Your task to perform on an android device: check google app version Image 0: 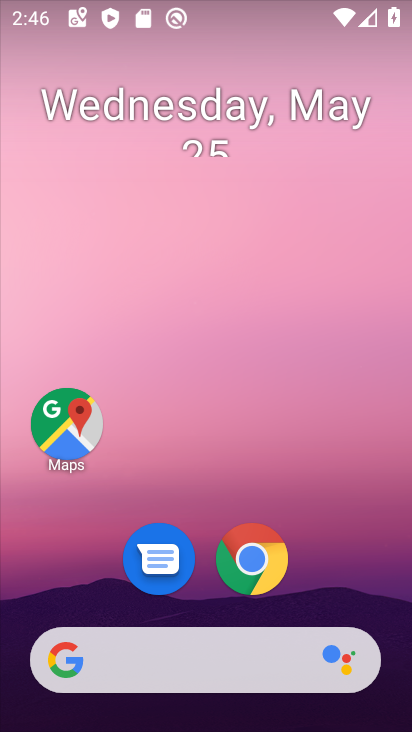
Step 0: press home button
Your task to perform on an android device: check google app version Image 1: 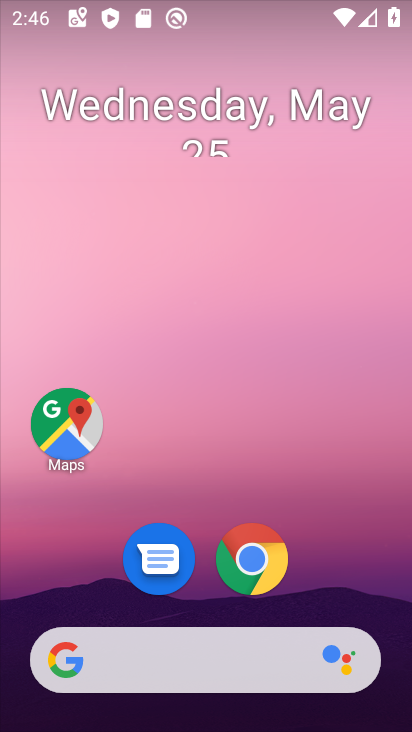
Step 1: drag from (204, 591) to (226, 96)
Your task to perform on an android device: check google app version Image 2: 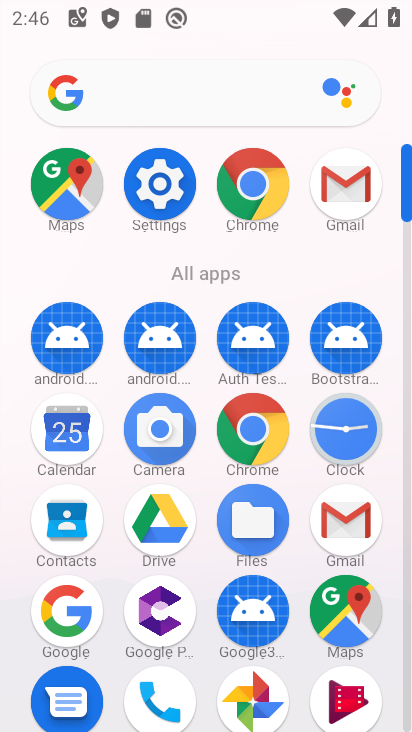
Step 2: click (65, 604)
Your task to perform on an android device: check google app version Image 3: 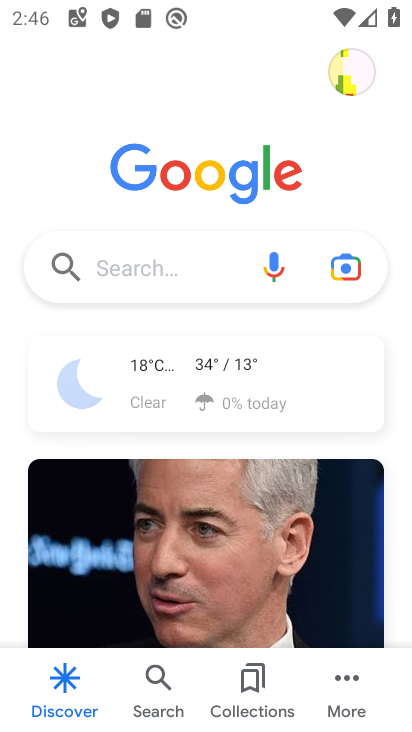
Step 3: click (344, 678)
Your task to perform on an android device: check google app version Image 4: 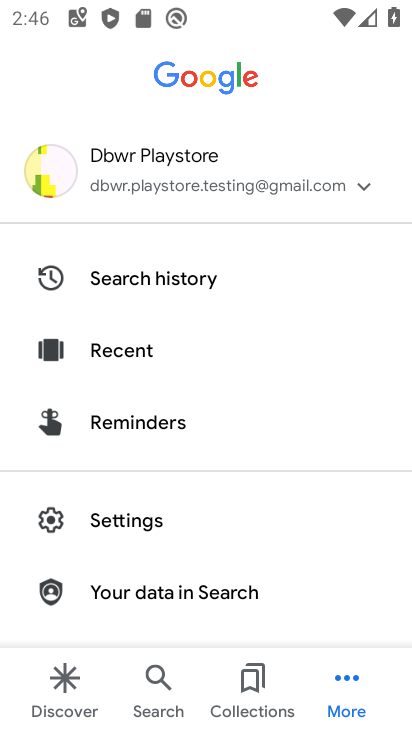
Step 4: click (173, 518)
Your task to perform on an android device: check google app version Image 5: 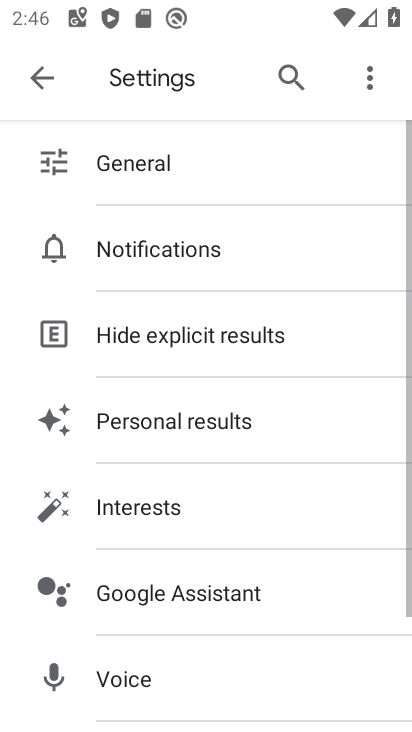
Step 5: click (165, 672)
Your task to perform on an android device: check google app version Image 6: 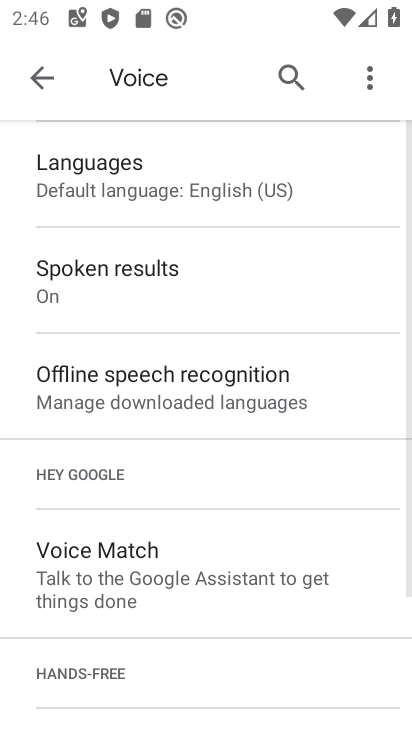
Step 6: click (52, 73)
Your task to perform on an android device: check google app version Image 7: 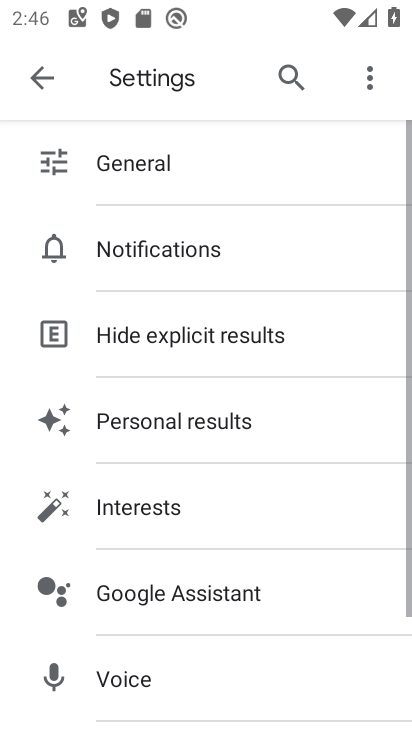
Step 7: drag from (181, 605) to (219, 173)
Your task to perform on an android device: check google app version Image 8: 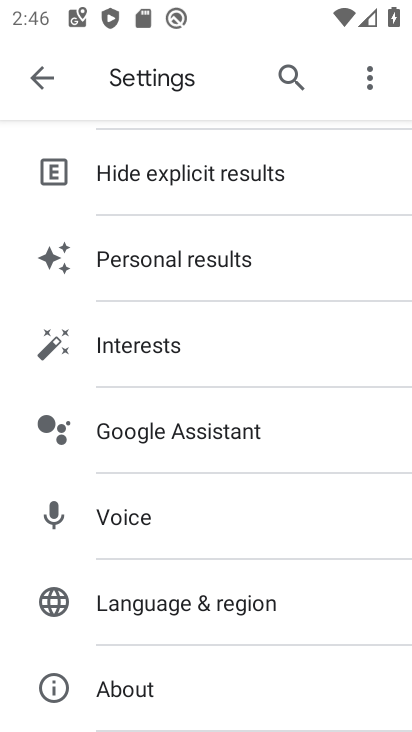
Step 8: click (163, 690)
Your task to perform on an android device: check google app version Image 9: 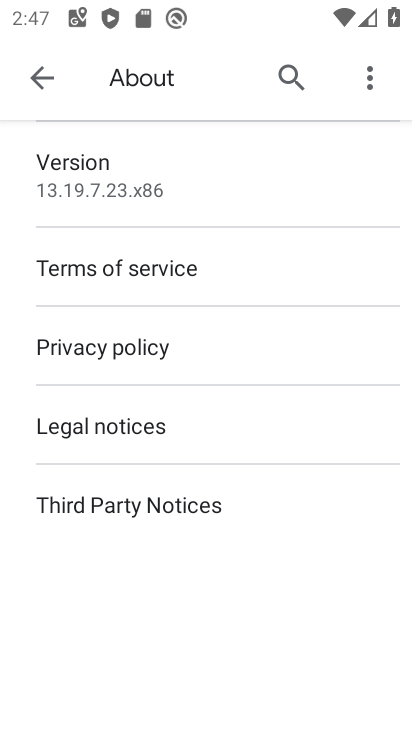
Step 9: task complete